Your task to perform on an android device: Show me the alarms in the clock app Image 0: 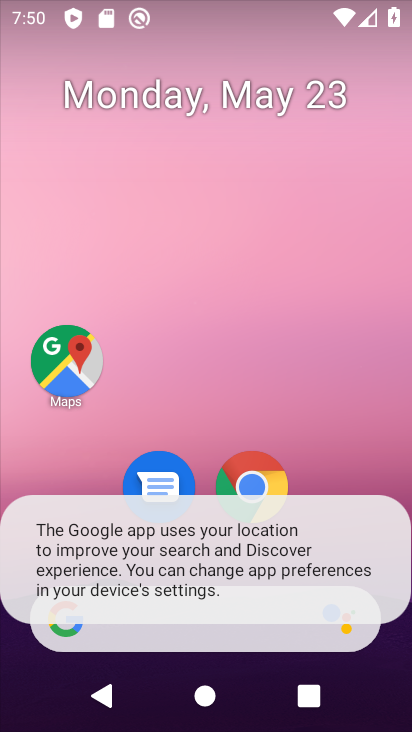
Step 0: drag from (377, 543) to (277, 126)
Your task to perform on an android device: Show me the alarms in the clock app Image 1: 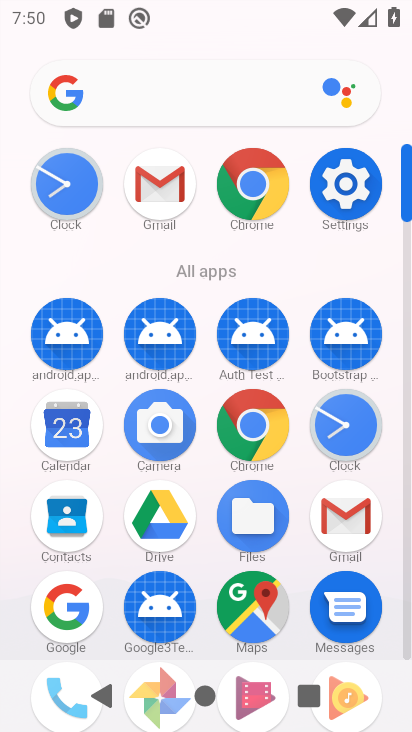
Step 1: drag from (4, 515) to (4, 130)
Your task to perform on an android device: Show me the alarms in the clock app Image 2: 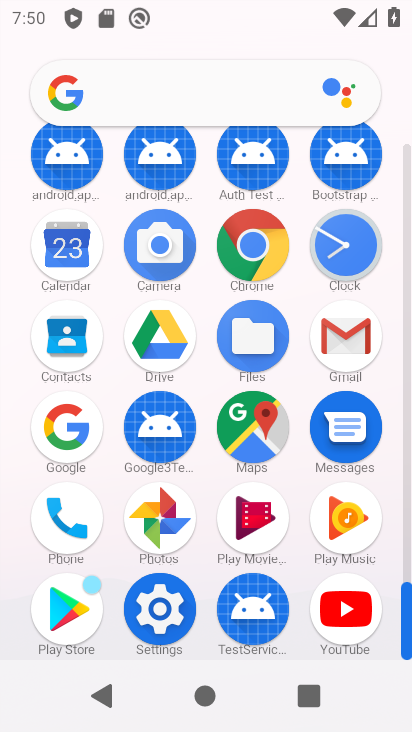
Step 2: click (341, 245)
Your task to perform on an android device: Show me the alarms in the clock app Image 3: 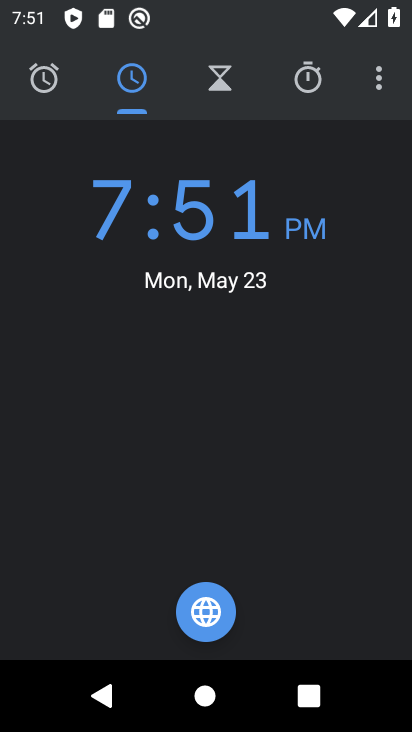
Step 3: click (52, 68)
Your task to perform on an android device: Show me the alarms in the clock app Image 4: 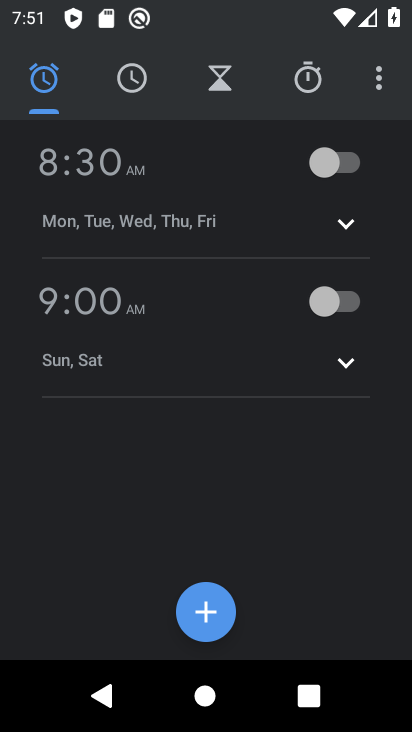
Step 4: click (195, 615)
Your task to perform on an android device: Show me the alarms in the clock app Image 5: 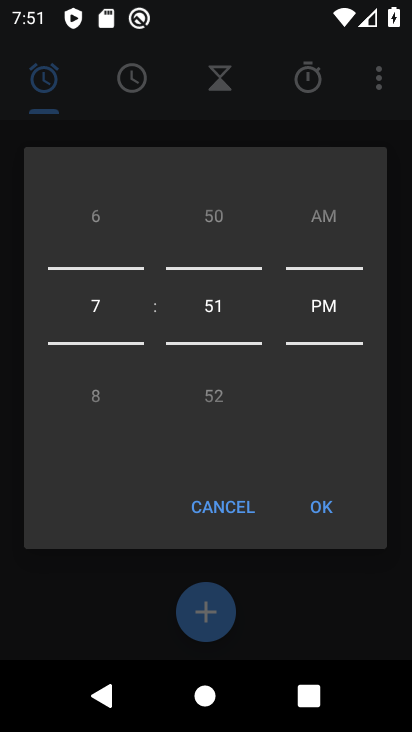
Step 5: drag from (133, 224) to (108, 428)
Your task to perform on an android device: Show me the alarms in the clock app Image 6: 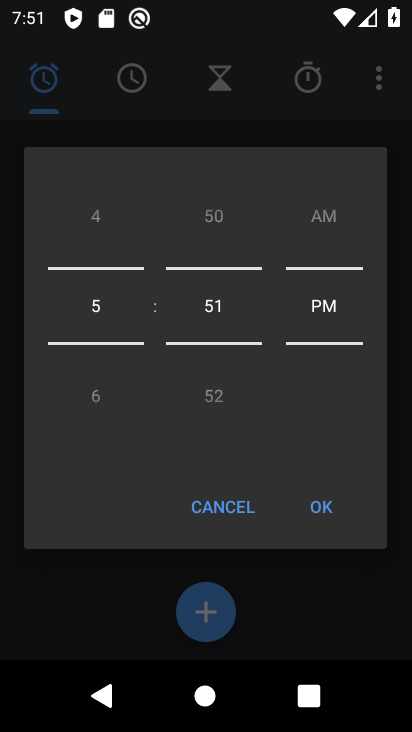
Step 6: drag from (248, 250) to (223, 411)
Your task to perform on an android device: Show me the alarms in the clock app Image 7: 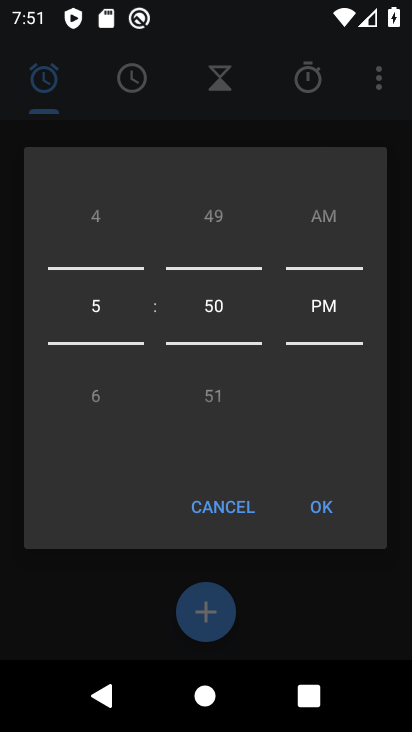
Step 7: click (304, 506)
Your task to perform on an android device: Show me the alarms in the clock app Image 8: 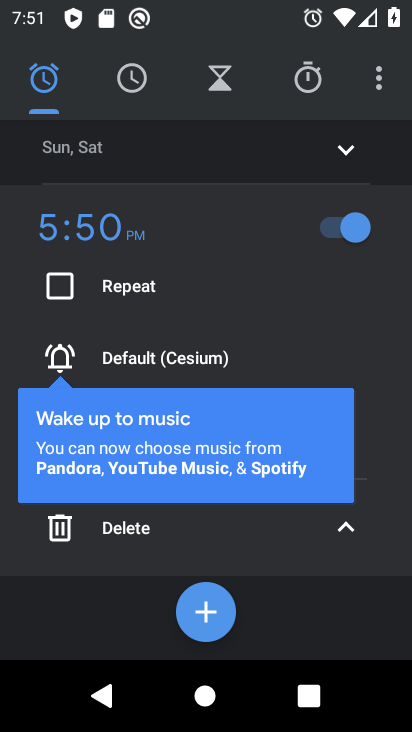
Step 8: task complete